Your task to perform on an android device: allow cookies in the chrome app Image 0: 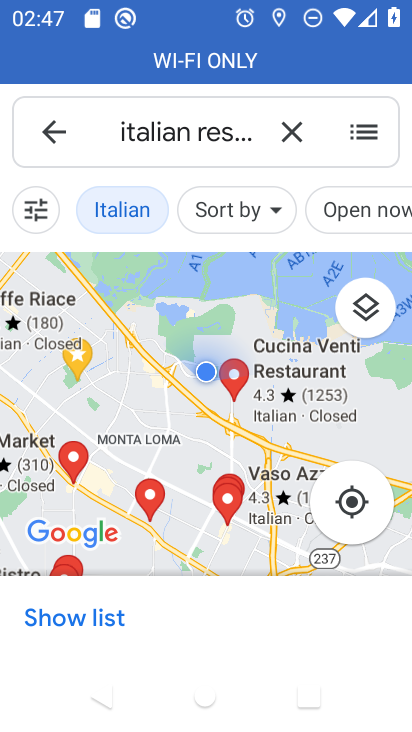
Step 0: press home button
Your task to perform on an android device: allow cookies in the chrome app Image 1: 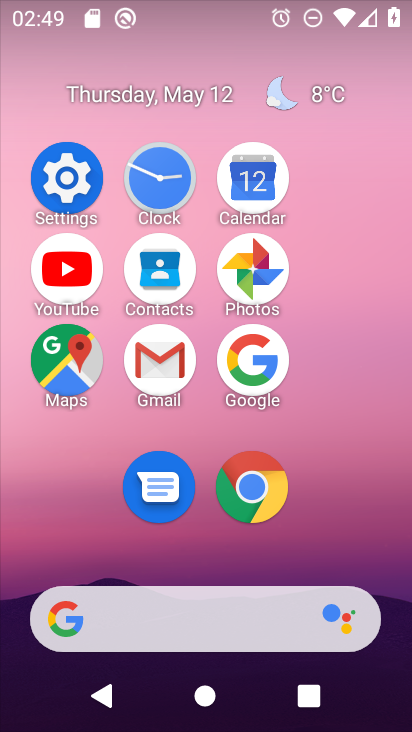
Step 1: click (258, 510)
Your task to perform on an android device: allow cookies in the chrome app Image 2: 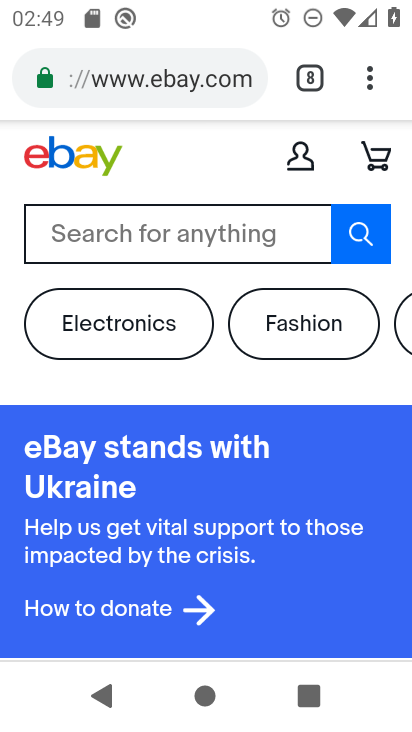
Step 2: click (385, 77)
Your task to perform on an android device: allow cookies in the chrome app Image 3: 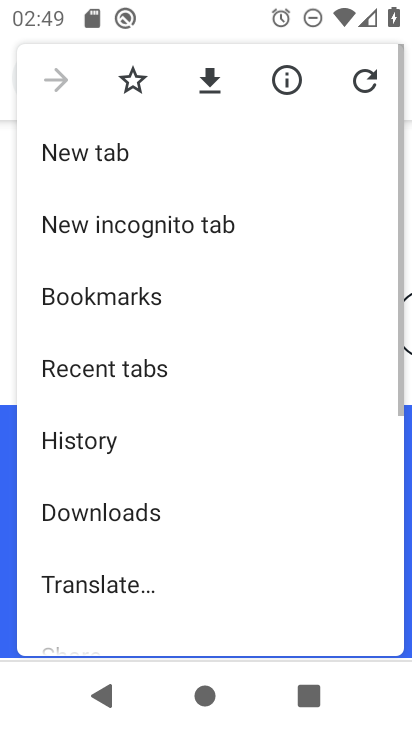
Step 3: drag from (292, 515) to (235, 120)
Your task to perform on an android device: allow cookies in the chrome app Image 4: 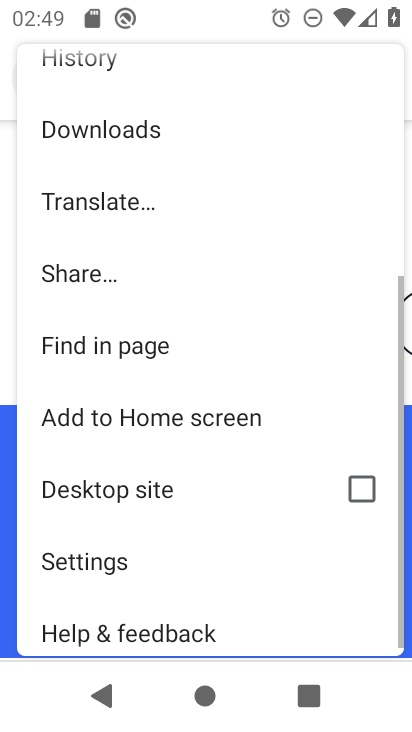
Step 4: drag from (217, 515) to (183, 114)
Your task to perform on an android device: allow cookies in the chrome app Image 5: 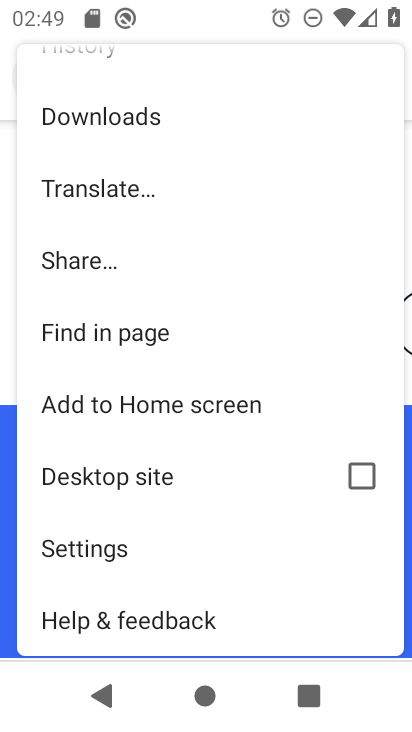
Step 5: click (146, 549)
Your task to perform on an android device: allow cookies in the chrome app Image 6: 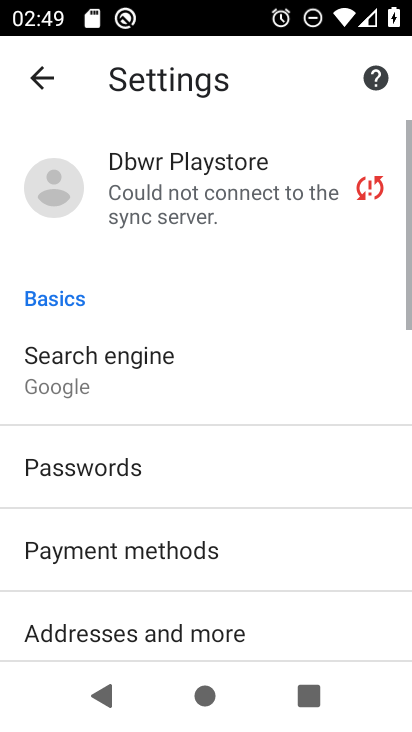
Step 6: drag from (145, 549) to (141, 75)
Your task to perform on an android device: allow cookies in the chrome app Image 7: 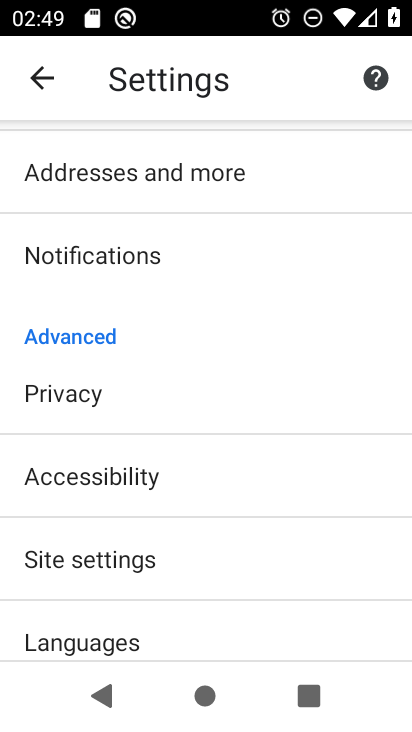
Step 7: drag from (164, 525) to (192, 146)
Your task to perform on an android device: allow cookies in the chrome app Image 8: 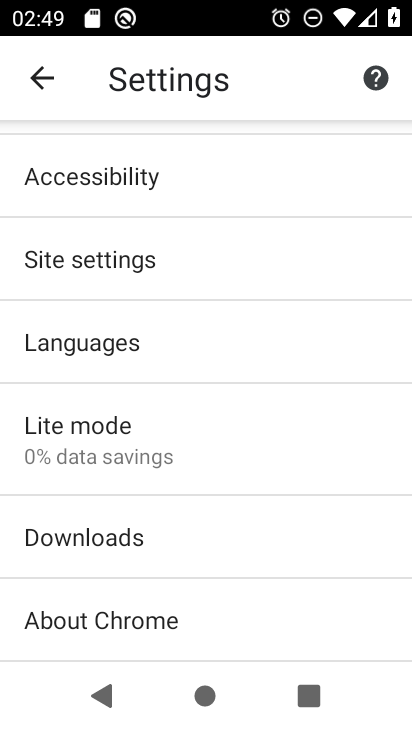
Step 8: click (182, 253)
Your task to perform on an android device: allow cookies in the chrome app Image 9: 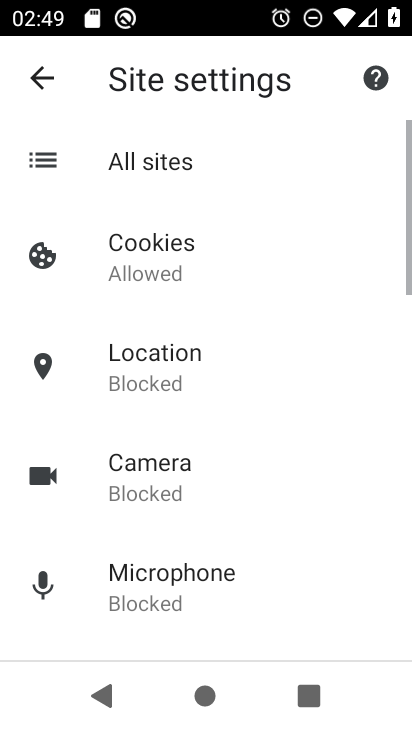
Step 9: click (297, 228)
Your task to perform on an android device: allow cookies in the chrome app Image 10: 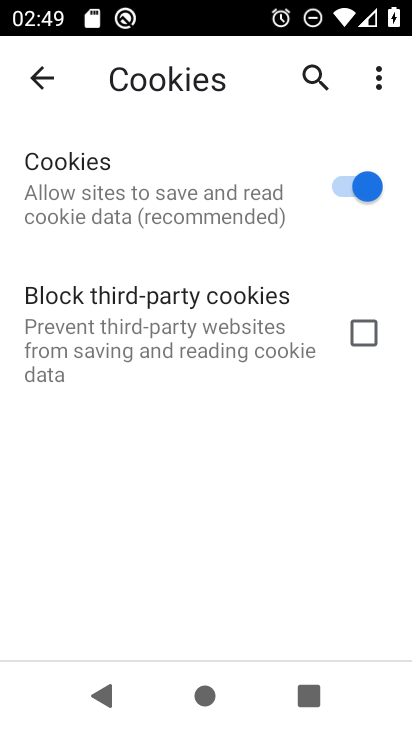
Step 10: task complete